Your task to perform on an android device: What's the weather? Image 0: 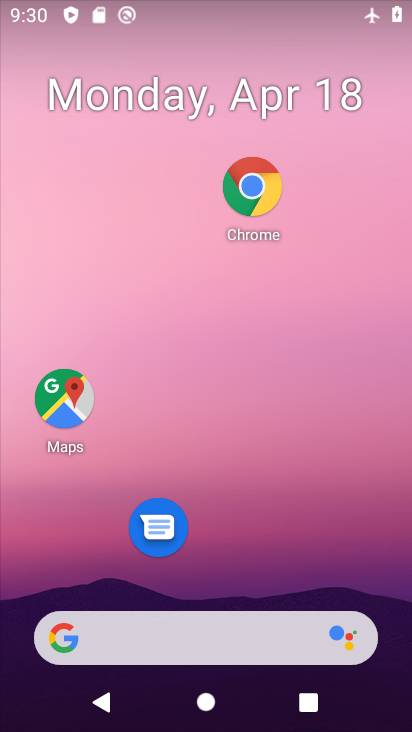
Step 0: drag from (277, 563) to (272, 106)
Your task to perform on an android device: What's the weather? Image 1: 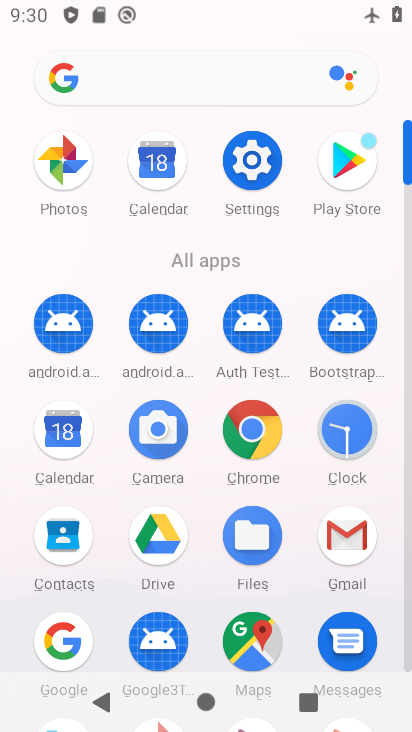
Step 1: click (208, 601)
Your task to perform on an android device: What's the weather? Image 2: 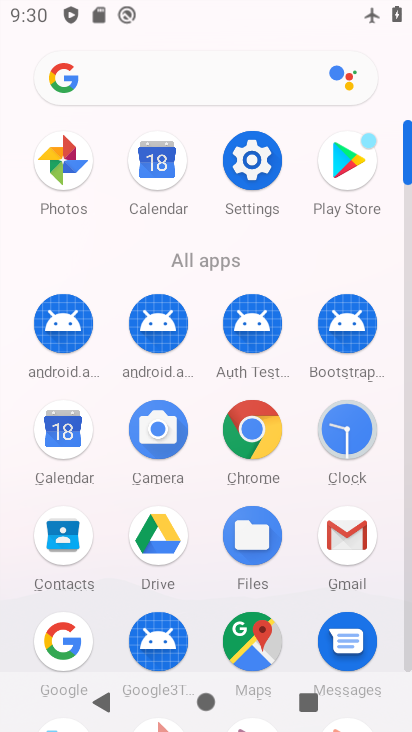
Step 2: click (63, 641)
Your task to perform on an android device: What's the weather? Image 3: 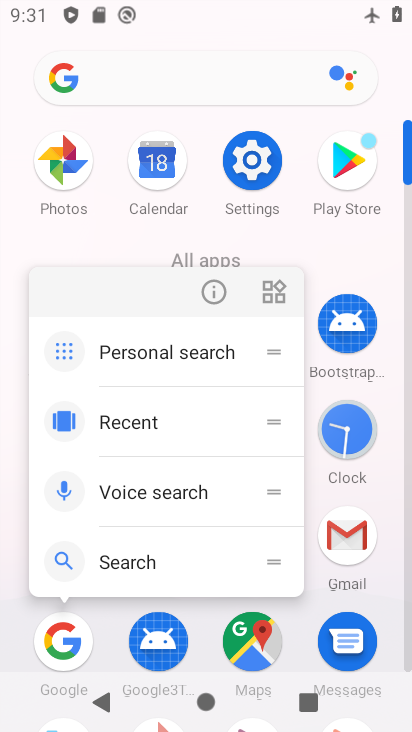
Step 3: click (63, 639)
Your task to perform on an android device: What's the weather? Image 4: 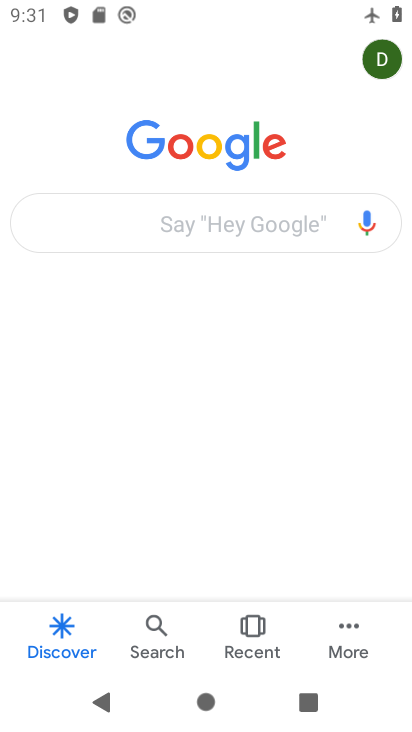
Step 4: click (228, 229)
Your task to perform on an android device: What's the weather? Image 5: 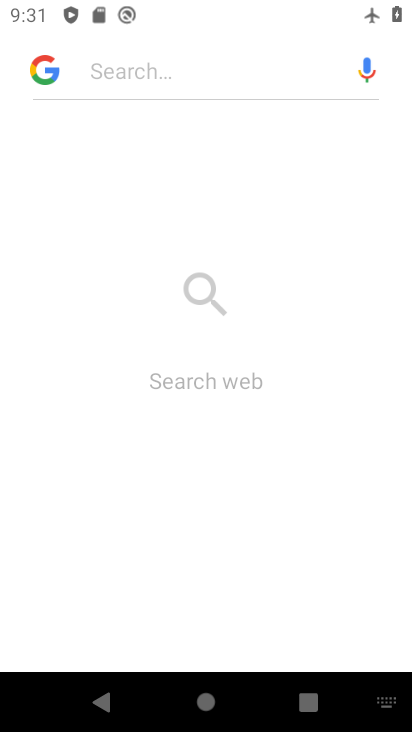
Step 5: type "What's the weather?"
Your task to perform on an android device: What's the weather? Image 6: 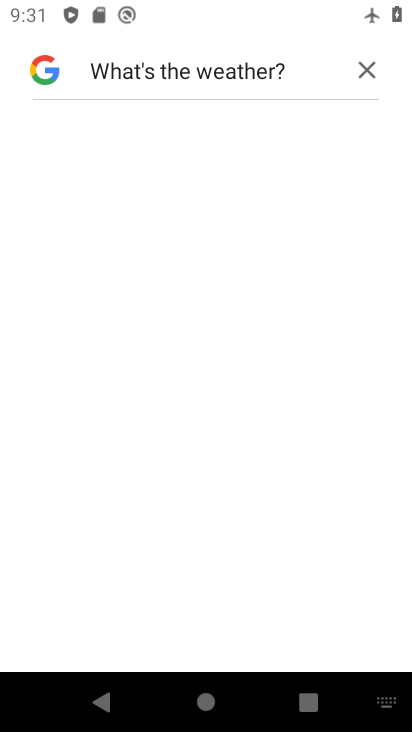
Step 6: task complete